Your task to perform on an android device: turn on wifi Image 0: 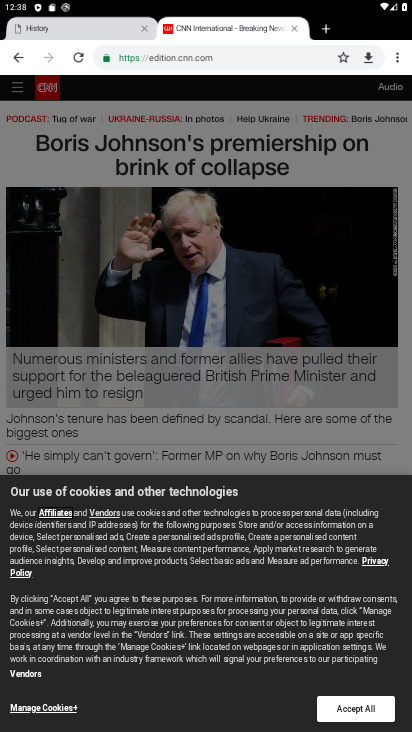
Step 0: press home button
Your task to perform on an android device: turn on wifi Image 1: 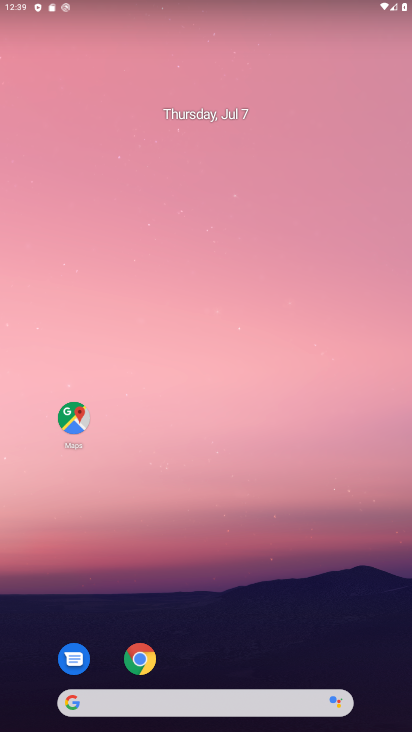
Step 1: drag from (244, 556) to (213, 109)
Your task to perform on an android device: turn on wifi Image 2: 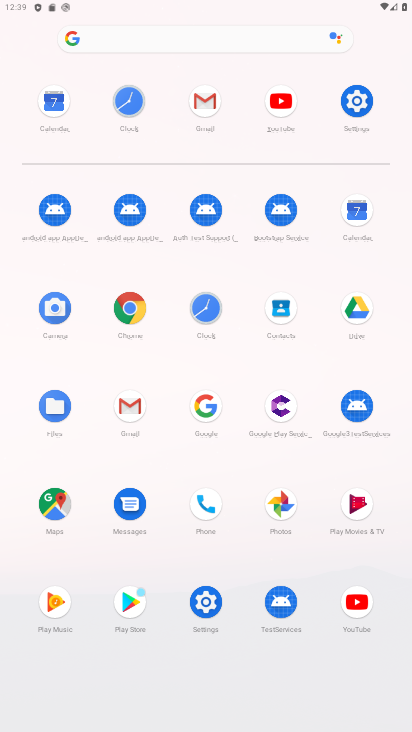
Step 2: click (358, 102)
Your task to perform on an android device: turn on wifi Image 3: 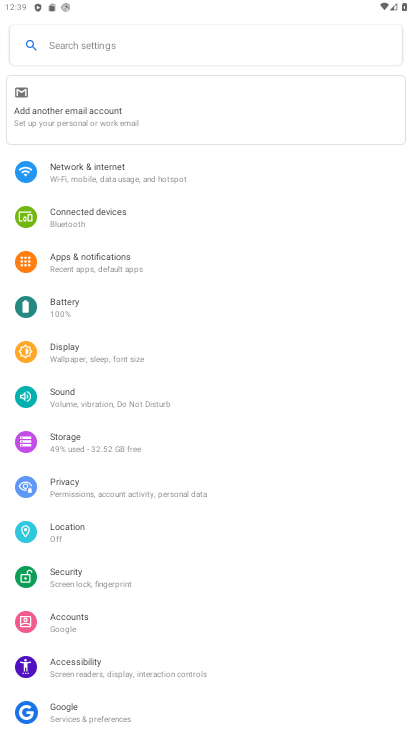
Step 3: click (75, 175)
Your task to perform on an android device: turn on wifi Image 4: 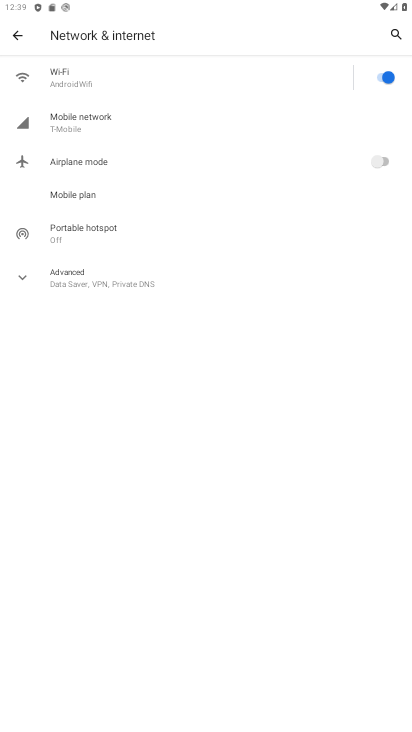
Step 4: task complete